Your task to perform on an android device: Go to Google Image 0: 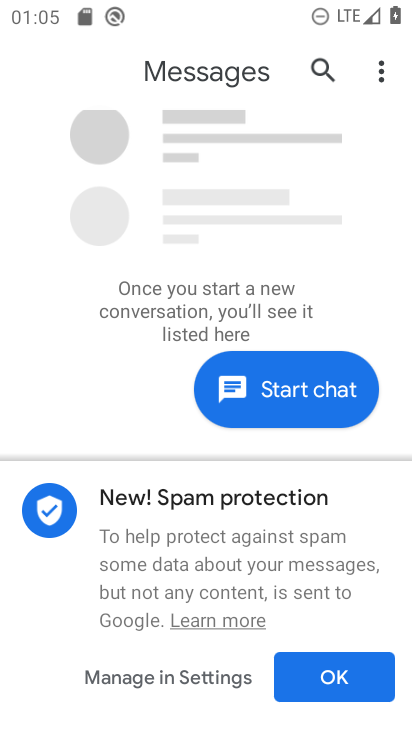
Step 0: press home button
Your task to perform on an android device: Go to Google Image 1: 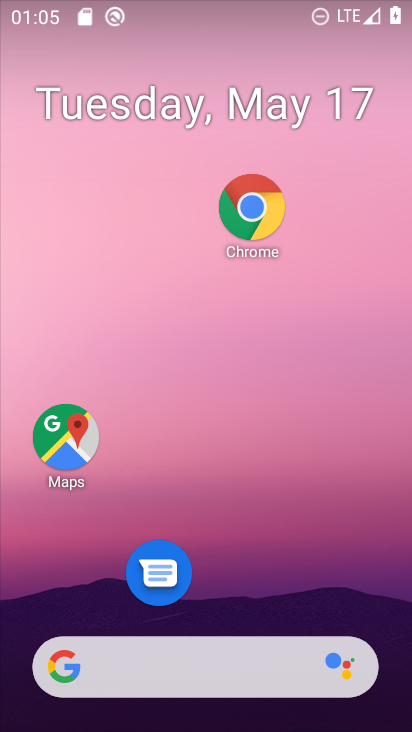
Step 1: drag from (276, 627) to (321, 6)
Your task to perform on an android device: Go to Google Image 2: 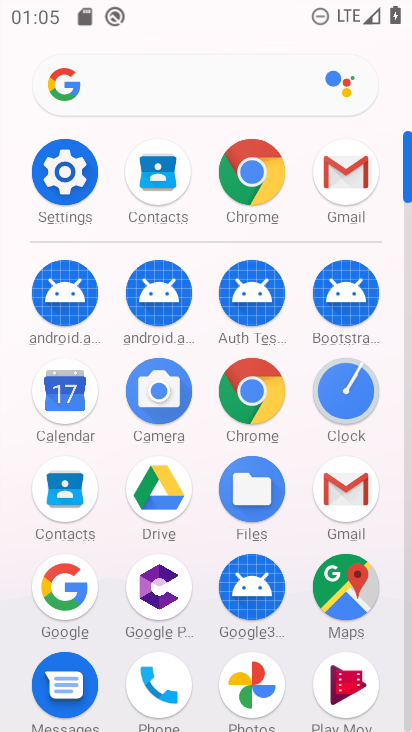
Step 2: click (54, 596)
Your task to perform on an android device: Go to Google Image 3: 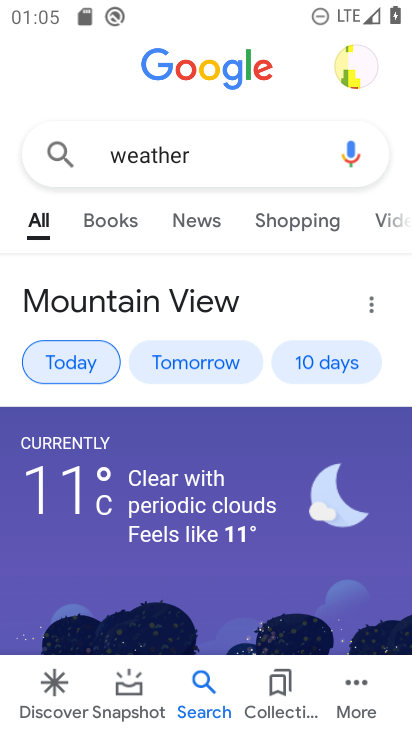
Step 3: task complete